Your task to perform on an android device: Open my contact list Image 0: 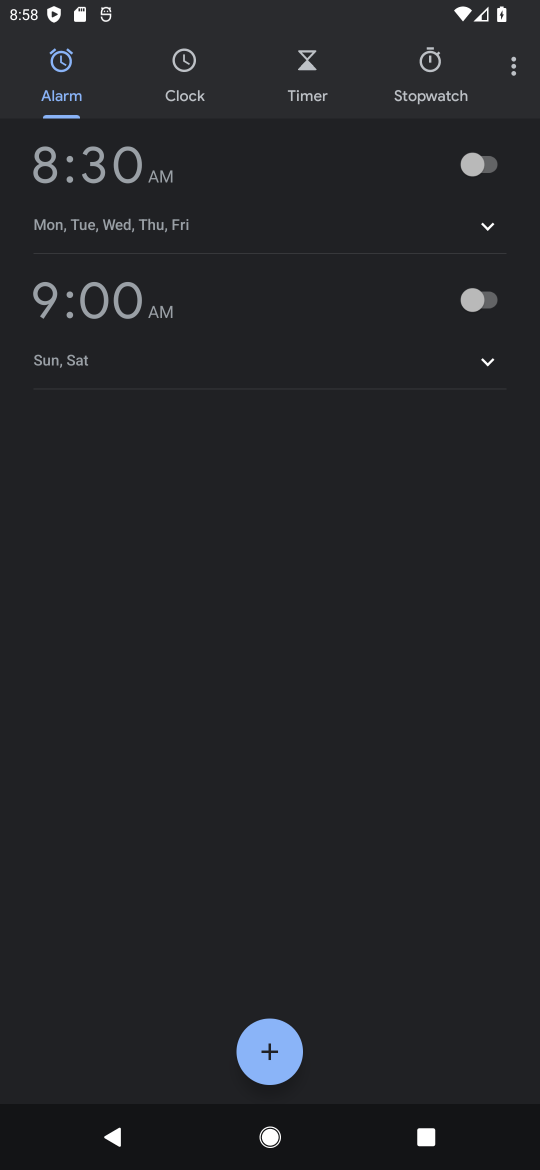
Step 0: press home button
Your task to perform on an android device: Open my contact list Image 1: 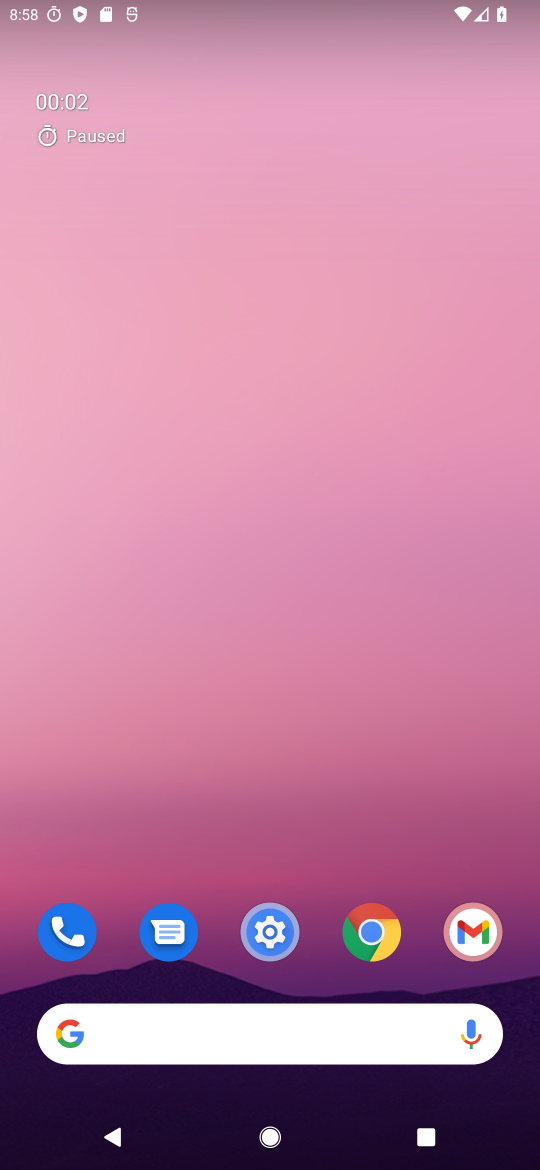
Step 1: drag from (298, 1039) to (285, 203)
Your task to perform on an android device: Open my contact list Image 2: 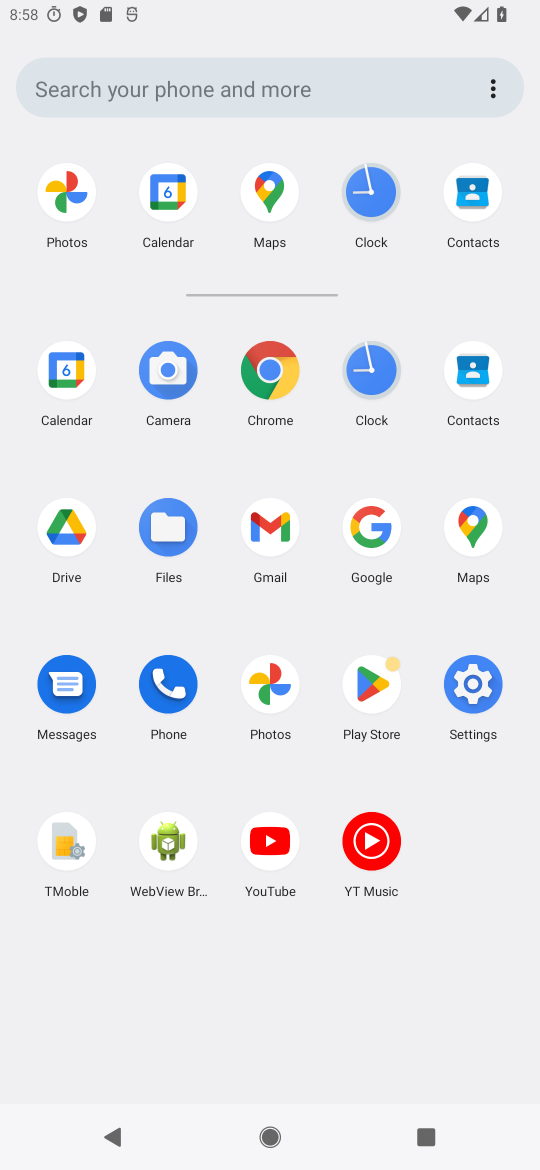
Step 2: click (466, 366)
Your task to perform on an android device: Open my contact list Image 3: 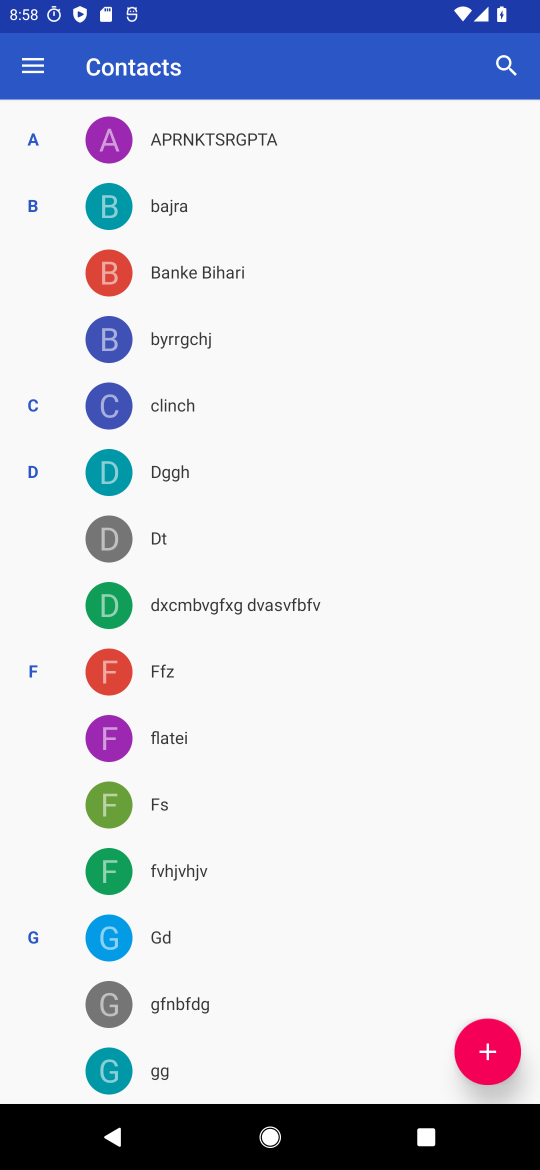
Step 3: task complete